Your task to perform on an android device: install app "Microsoft Authenticator" Image 0: 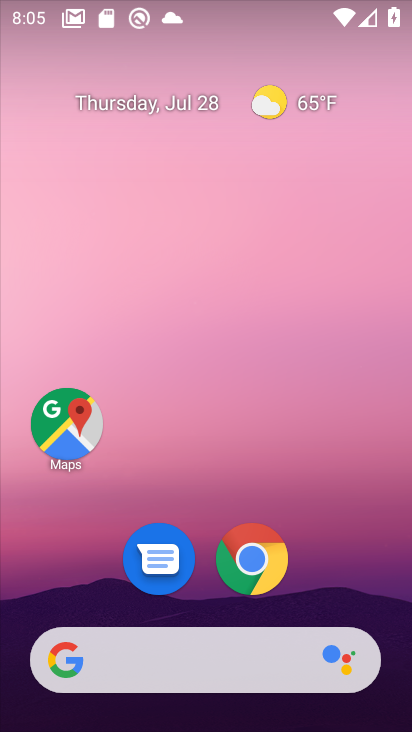
Step 0: drag from (184, 552) to (167, 245)
Your task to perform on an android device: install app "Microsoft Authenticator" Image 1: 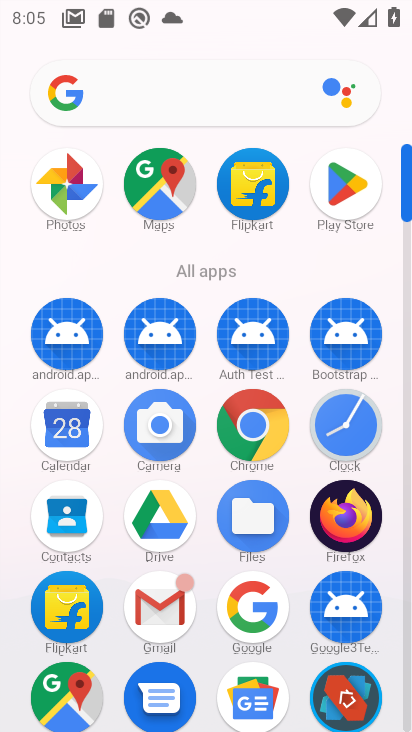
Step 1: click (353, 179)
Your task to perform on an android device: install app "Microsoft Authenticator" Image 2: 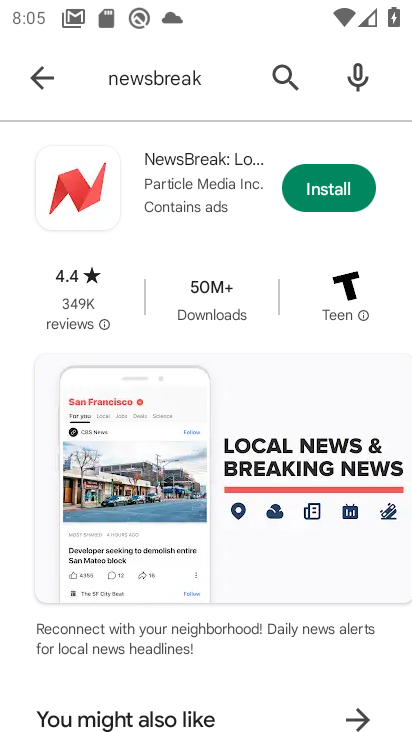
Step 2: click (182, 93)
Your task to perform on an android device: install app "Microsoft Authenticator" Image 3: 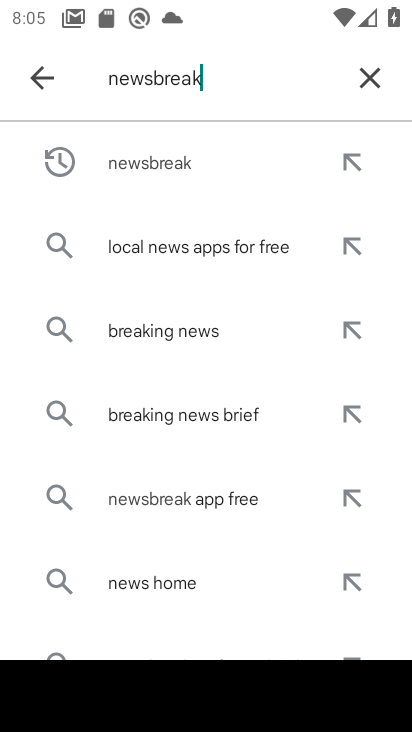
Step 3: click (367, 78)
Your task to perform on an android device: install app "Microsoft Authenticator" Image 4: 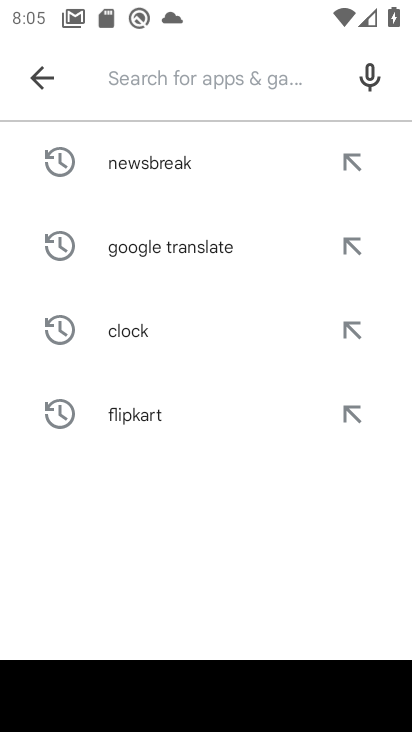
Step 4: type "microsoft Authenticator"
Your task to perform on an android device: install app "Microsoft Authenticator" Image 5: 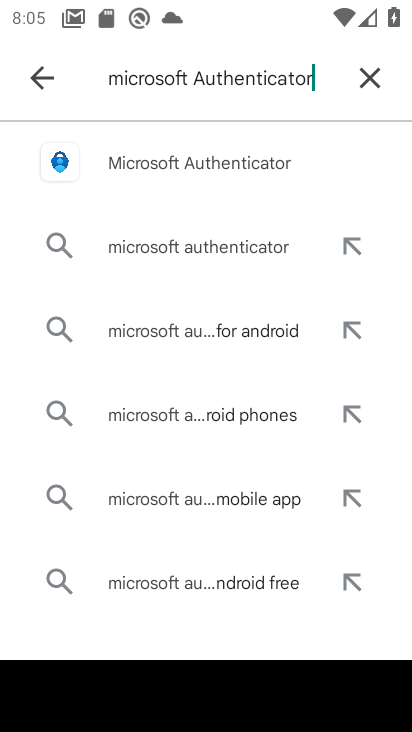
Step 5: click (164, 174)
Your task to perform on an android device: install app "Microsoft Authenticator" Image 6: 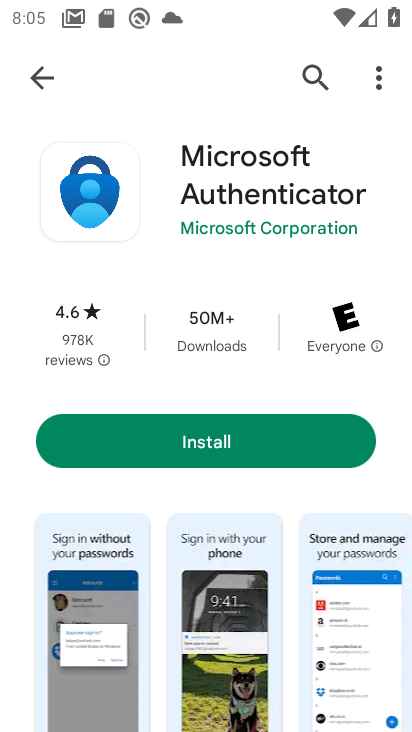
Step 6: click (215, 450)
Your task to perform on an android device: install app "Microsoft Authenticator" Image 7: 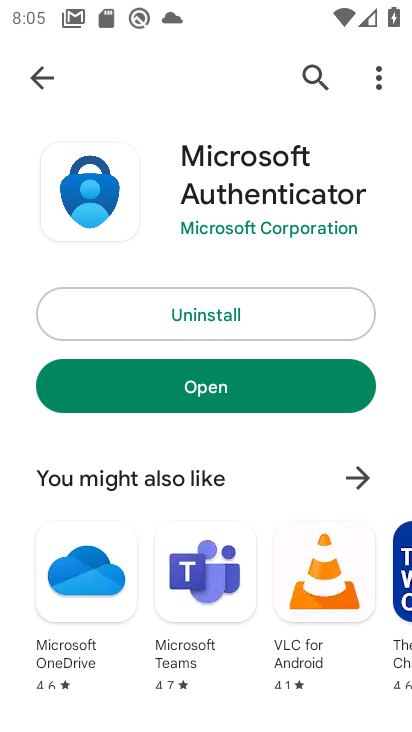
Step 7: task complete